Your task to perform on an android device: Search for logitech g pro on walmart.com, select the first entry, and add it to the cart. Image 0: 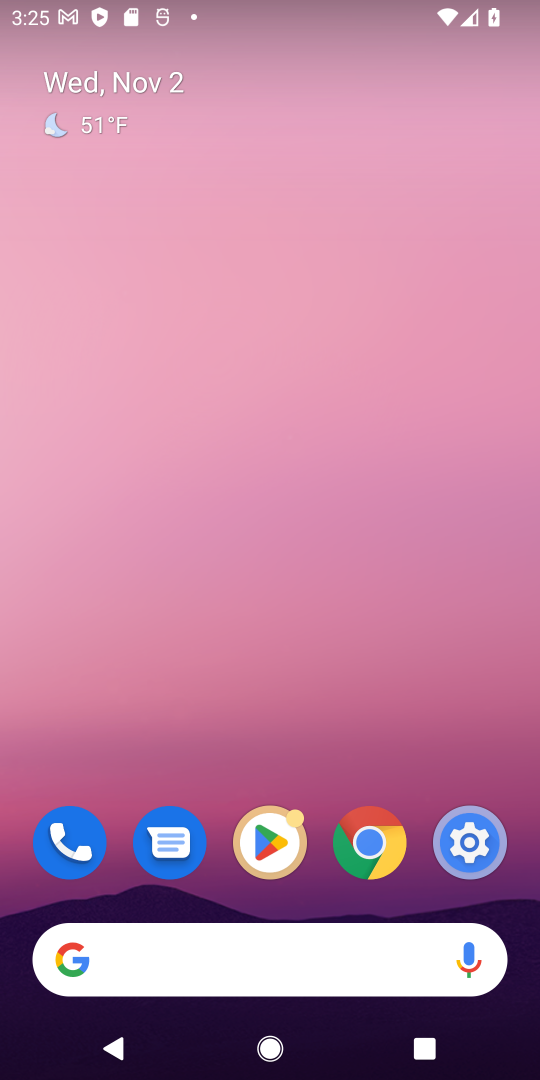
Step 0: click (282, 960)
Your task to perform on an android device: Search for logitech g pro on walmart.com, select the first entry, and add it to the cart. Image 1: 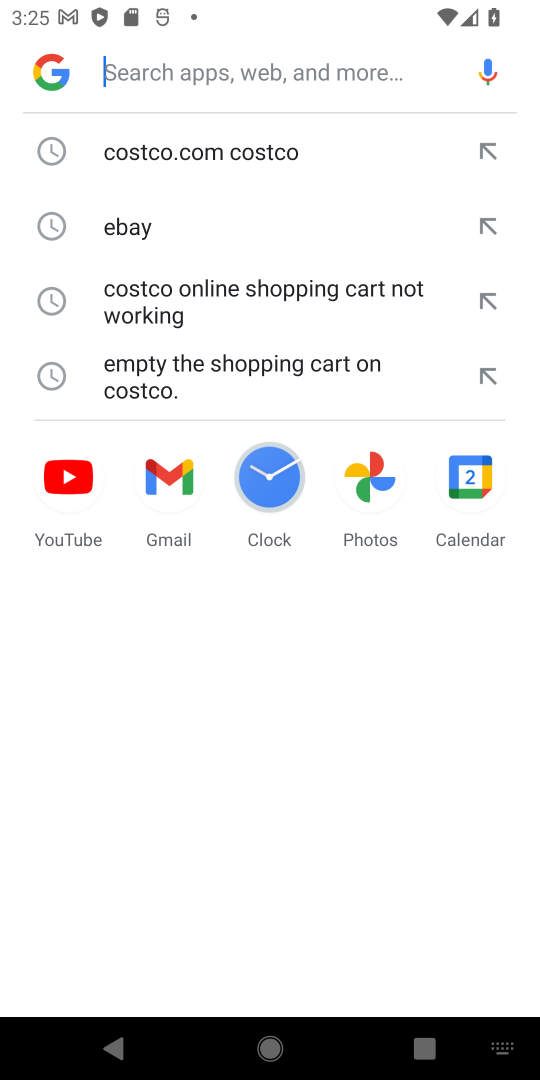
Step 1: type "walmart.com"
Your task to perform on an android device: Search for logitech g pro on walmart.com, select the first entry, and add it to the cart. Image 2: 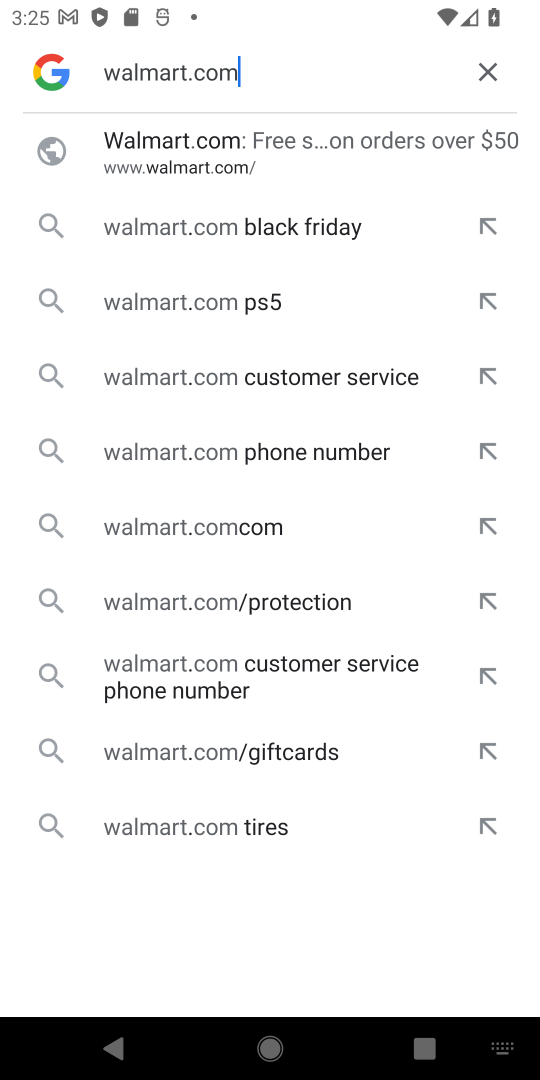
Step 2: click (174, 146)
Your task to perform on an android device: Search for logitech g pro on walmart.com, select the first entry, and add it to the cart. Image 3: 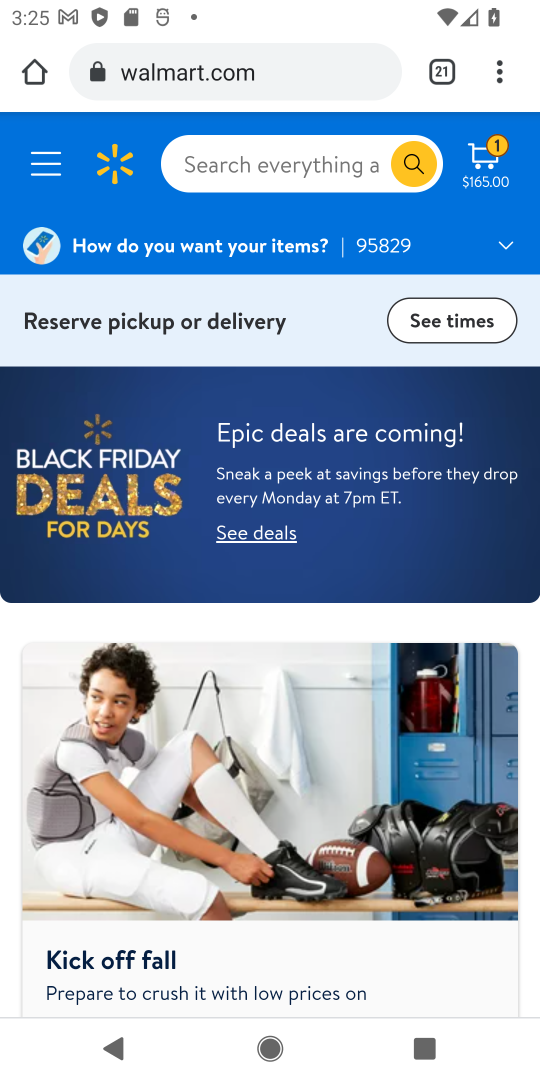
Step 3: click (238, 154)
Your task to perform on an android device: Search for logitech g pro on walmart.com, select the first entry, and add it to the cart. Image 4: 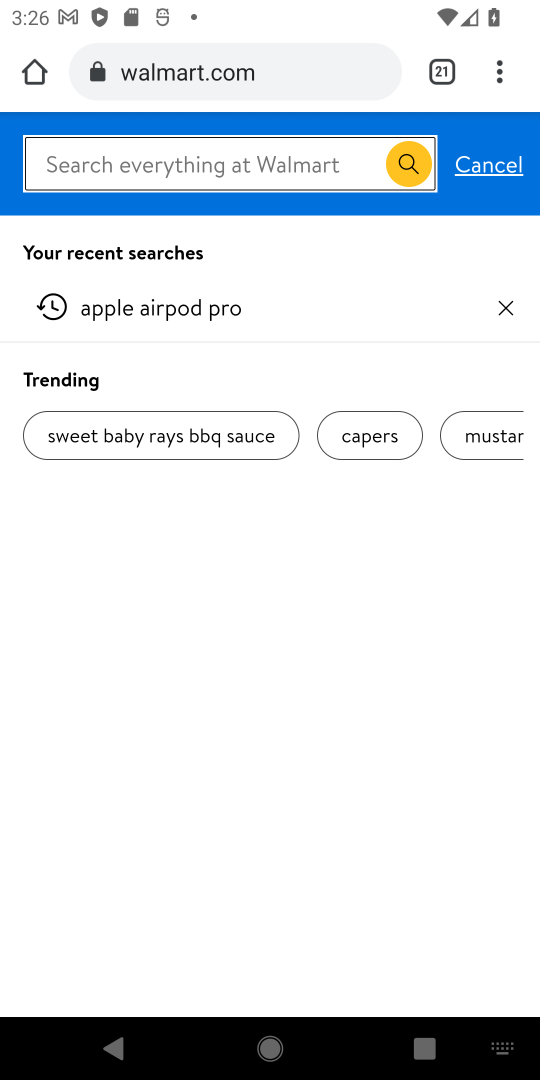
Step 4: type "logitech g pro"
Your task to perform on an android device: Search for logitech g pro on walmart.com, select the first entry, and add it to the cart. Image 5: 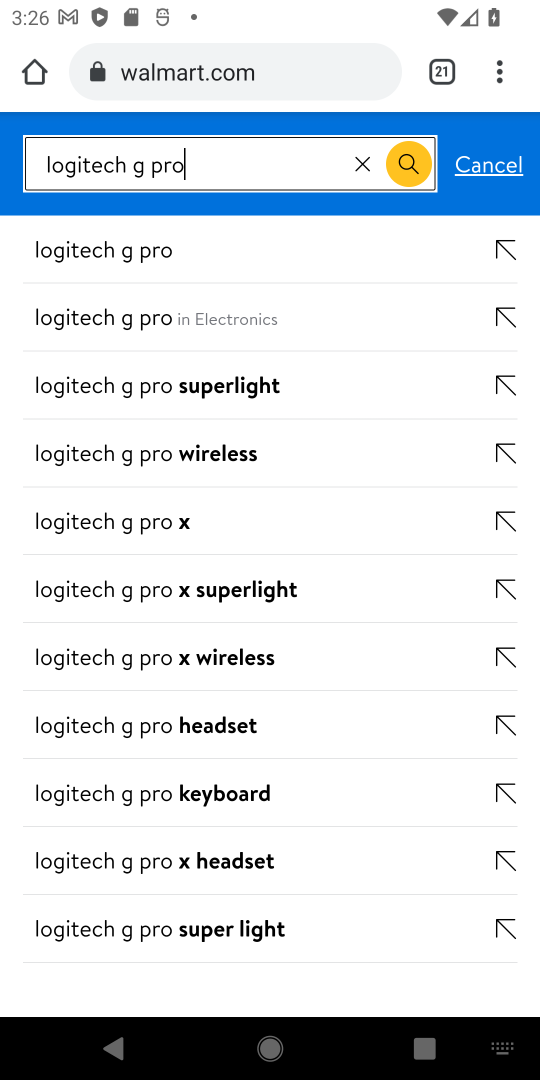
Step 5: click (155, 250)
Your task to perform on an android device: Search for logitech g pro on walmart.com, select the first entry, and add it to the cart. Image 6: 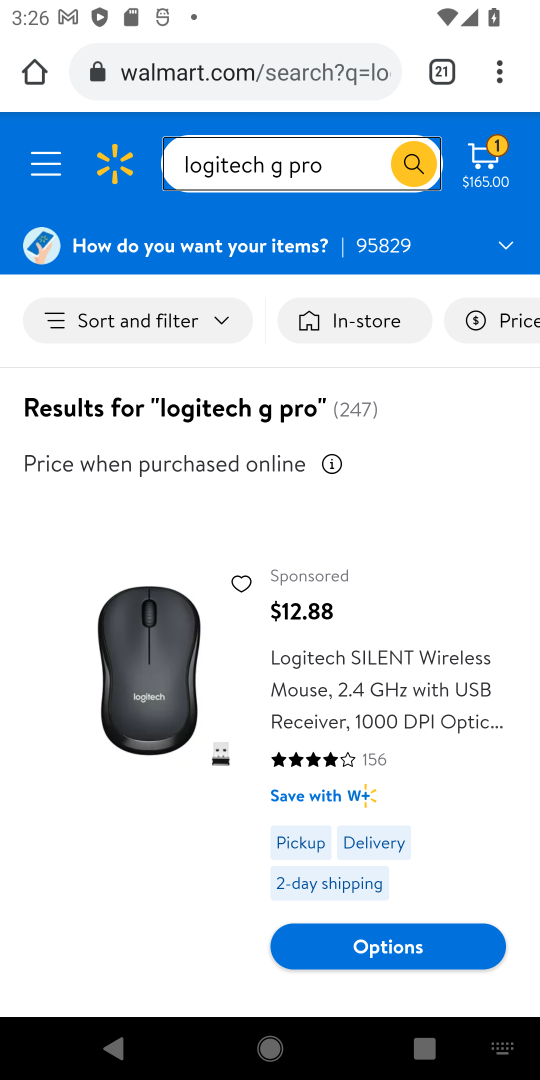
Step 6: click (395, 943)
Your task to perform on an android device: Search for logitech g pro on walmart.com, select the first entry, and add it to the cart. Image 7: 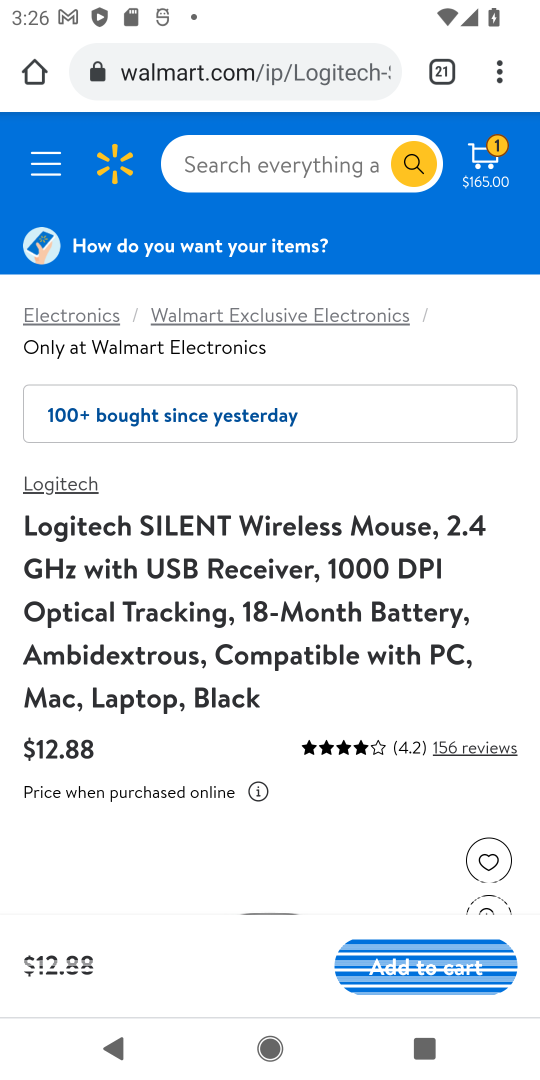
Step 7: drag from (362, 699) to (332, 500)
Your task to perform on an android device: Search for logitech g pro on walmart.com, select the first entry, and add it to the cart. Image 8: 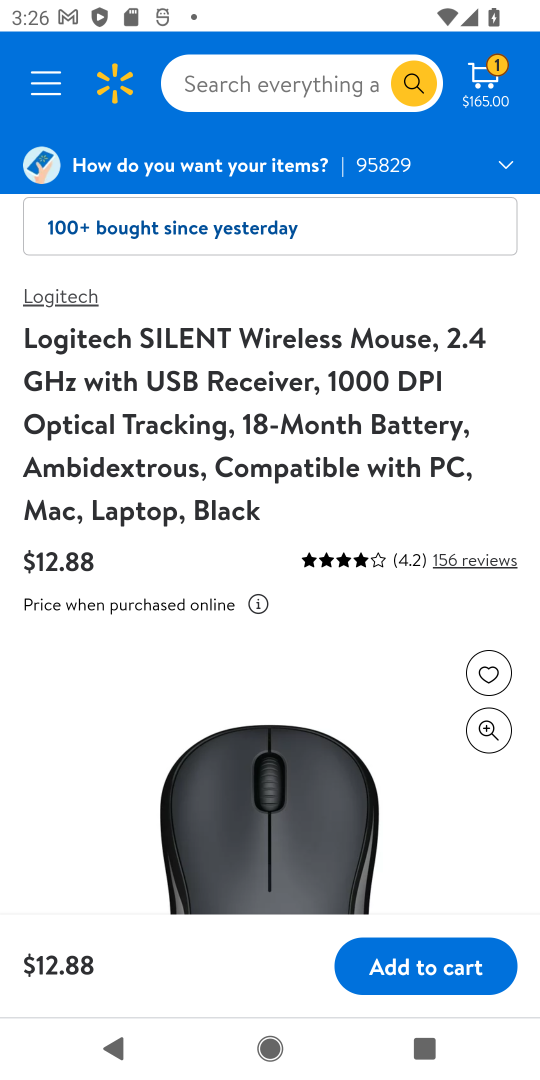
Step 8: click (431, 975)
Your task to perform on an android device: Search for logitech g pro on walmart.com, select the first entry, and add it to the cart. Image 9: 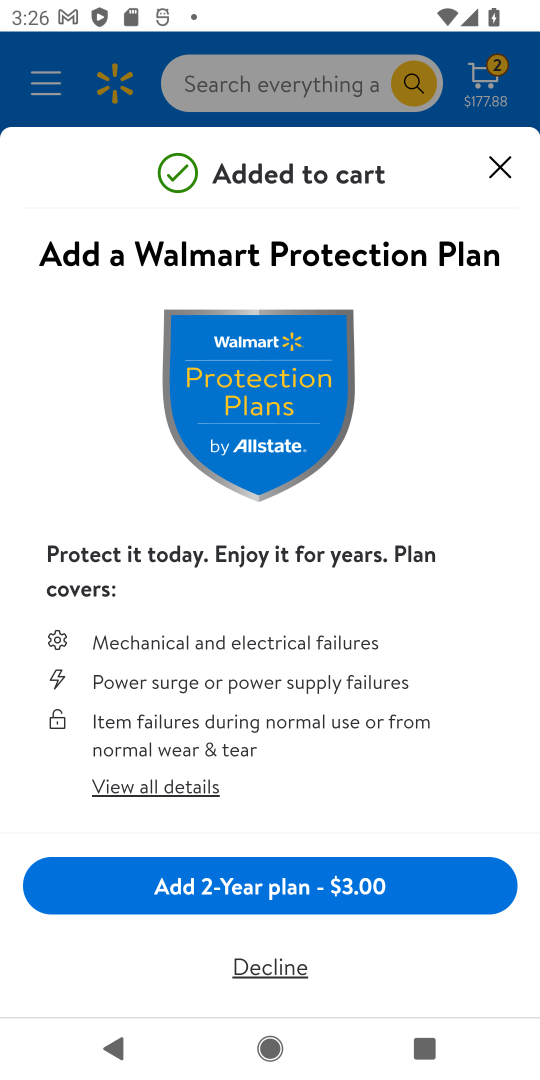
Step 9: click (498, 171)
Your task to perform on an android device: Search for logitech g pro on walmart.com, select the first entry, and add it to the cart. Image 10: 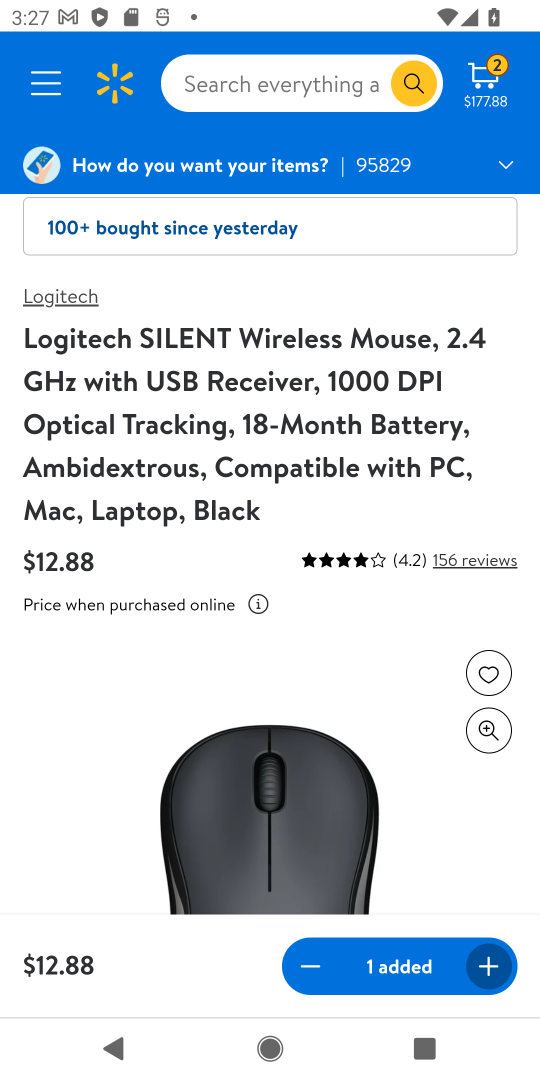
Step 10: task complete